Your task to perform on an android device: Go to CNN.com Image 0: 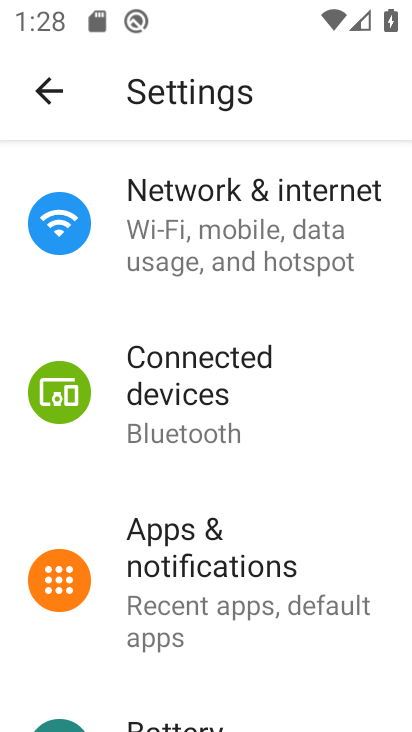
Step 0: press home button
Your task to perform on an android device: Go to CNN.com Image 1: 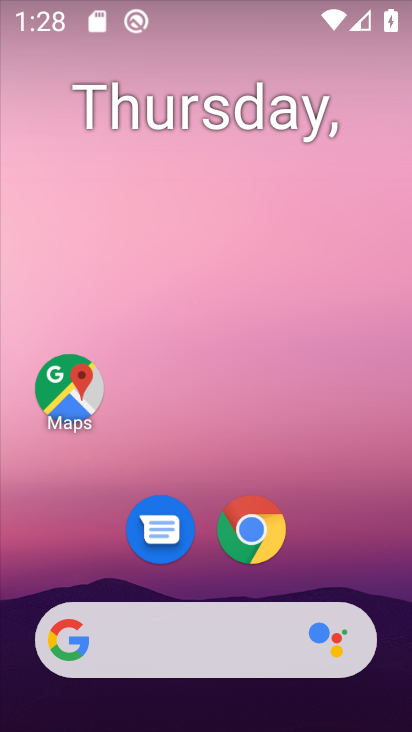
Step 1: click (266, 529)
Your task to perform on an android device: Go to CNN.com Image 2: 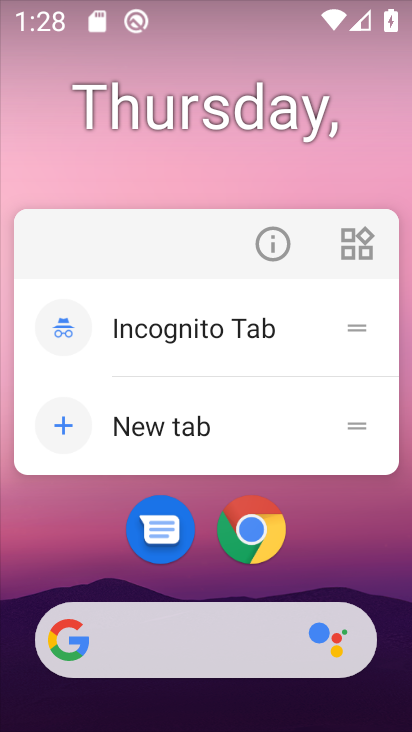
Step 2: click (251, 535)
Your task to perform on an android device: Go to CNN.com Image 3: 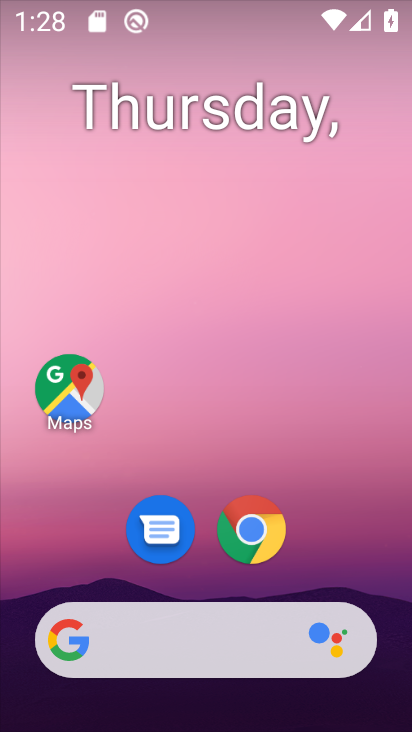
Step 3: click (251, 535)
Your task to perform on an android device: Go to CNN.com Image 4: 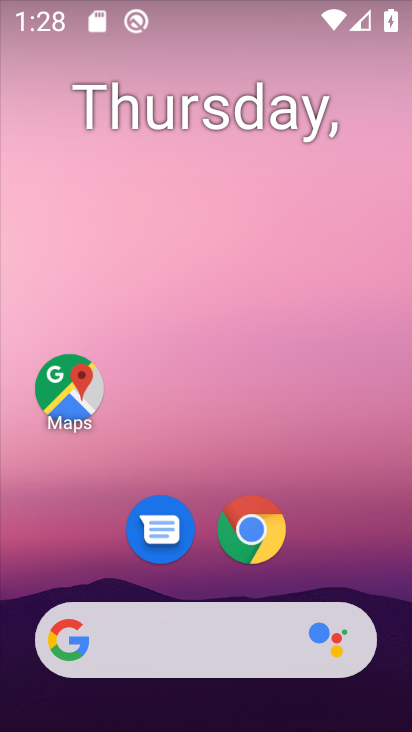
Step 4: drag from (381, 350) to (402, 111)
Your task to perform on an android device: Go to CNN.com Image 5: 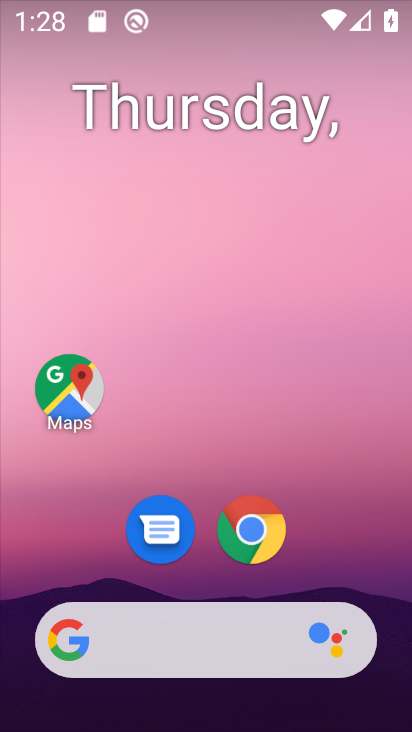
Step 5: drag from (359, 509) to (366, 60)
Your task to perform on an android device: Go to CNN.com Image 6: 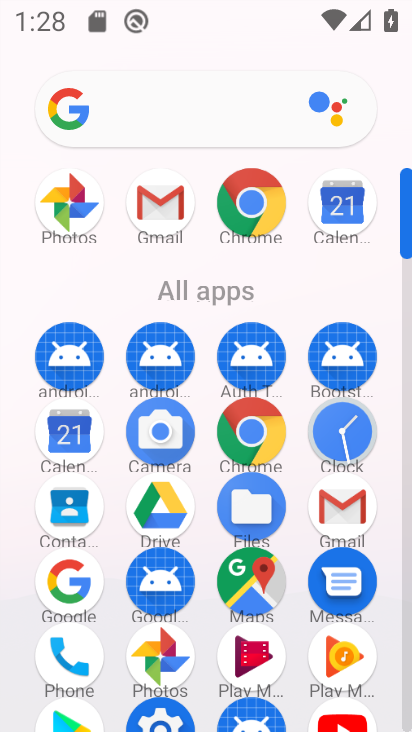
Step 6: click (247, 433)
Your task to perform on an android device: Go to CNN.com Image 7: 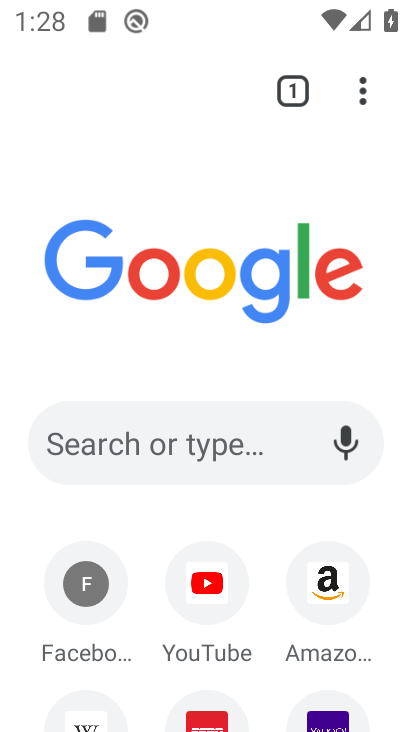
Step 7: click (161, 424)
Your task to perform on an android device: Go to CNN.com Image 8: 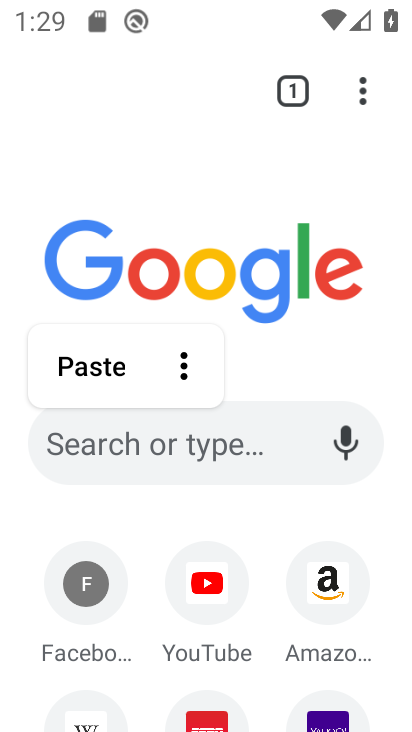
Step 8: type "cnn.com"
Your task to perform on an android device: Go to CNN.com Image 9: 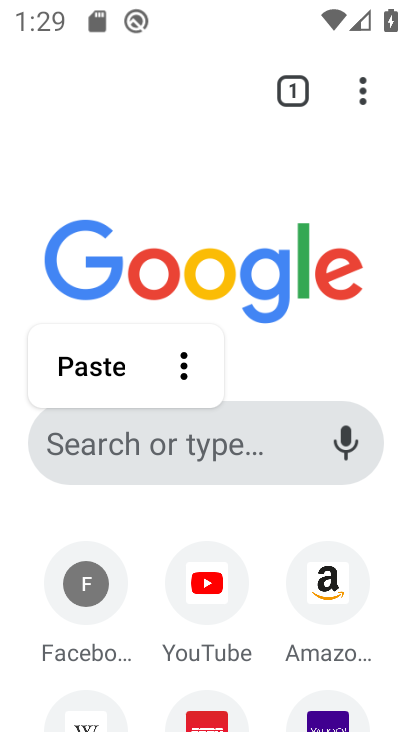
Step 9: click (112, 376)
Your task to perform on an android device: Go to CNN.com Image 10: 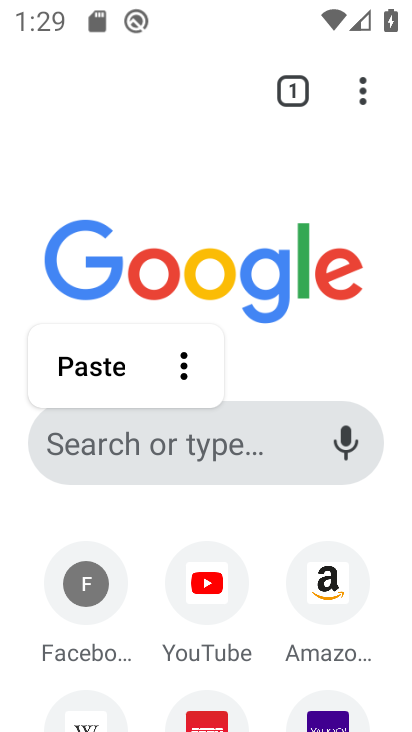
Step 10: click (145, 439)
Your task to perform on an android device: Go to CNN.com Image 11: 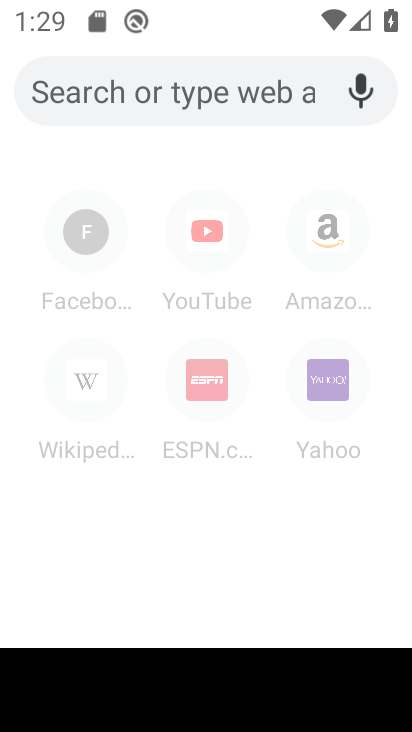
Step 11: type "cnn.com"
Your task to perform on an android device: Go to CNN.com Image 12: 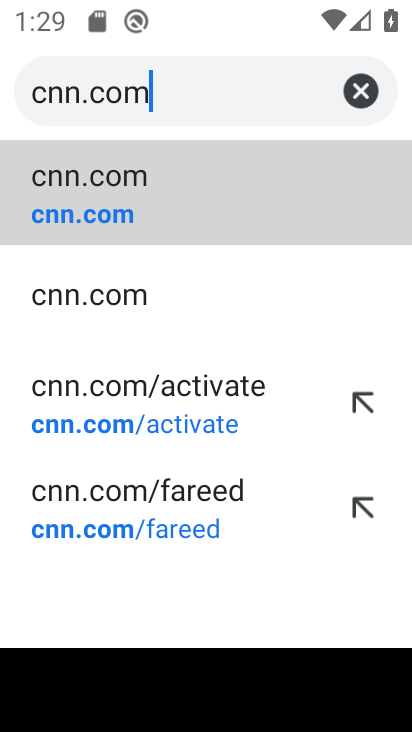
Step 12: click (47, 194)
Your task to perform on an android device: Go to CNN.com Image 13: 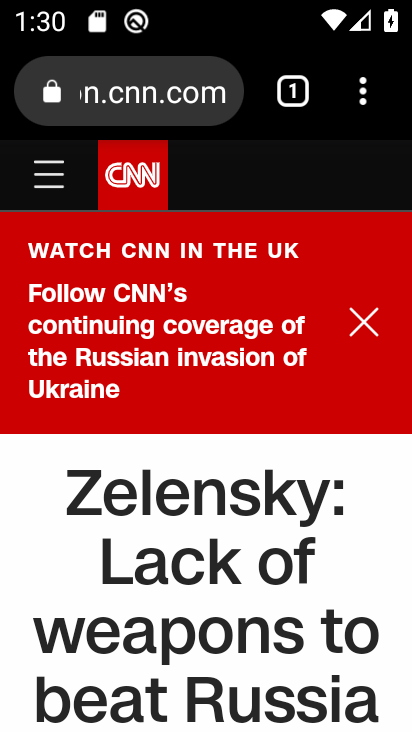
Step 13: task complete